Your task to perform on an android device: turn off wifi Image 0: 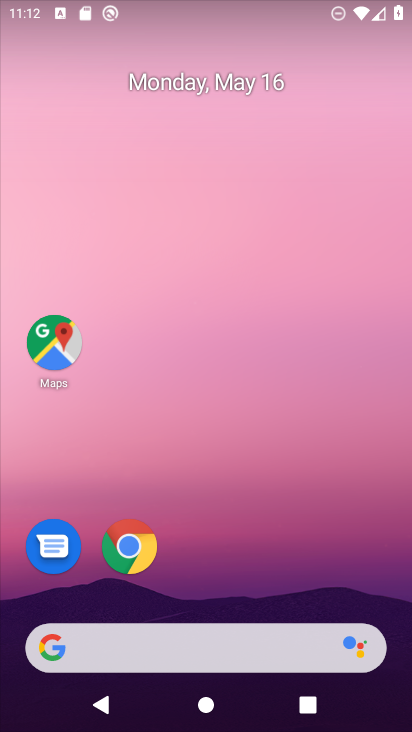
Step 0: drag from (232, 4) to (171, 401)
Your task to perform on an android device: turn off wifi Image 1: 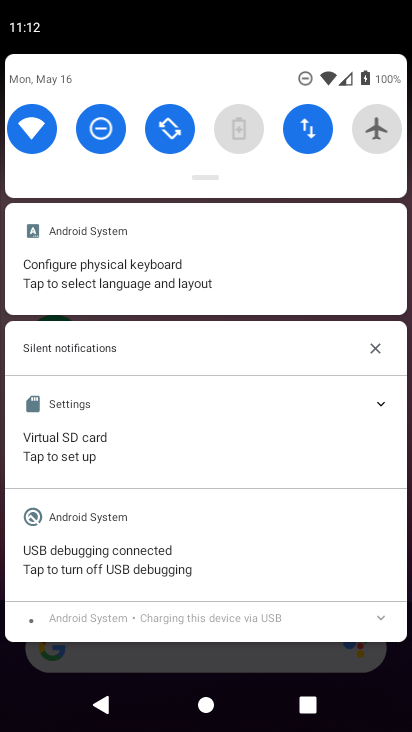
Step 1: click (41, 128)
Your task to perform on an android device: turn off wifi Image 2: 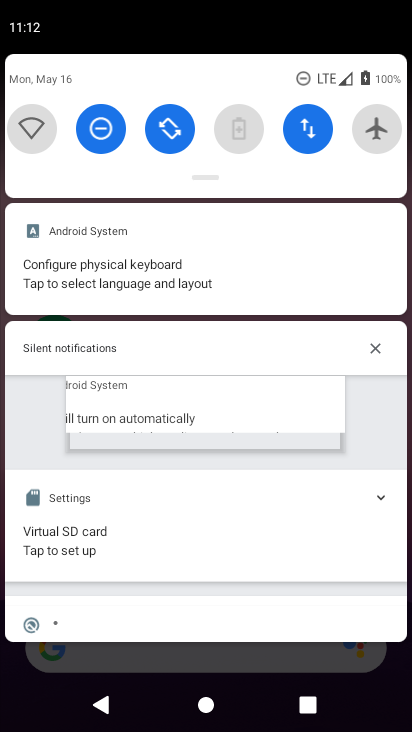
Step 2: task complete